Your task to perform on an android device: Open privacy settings Image 0: 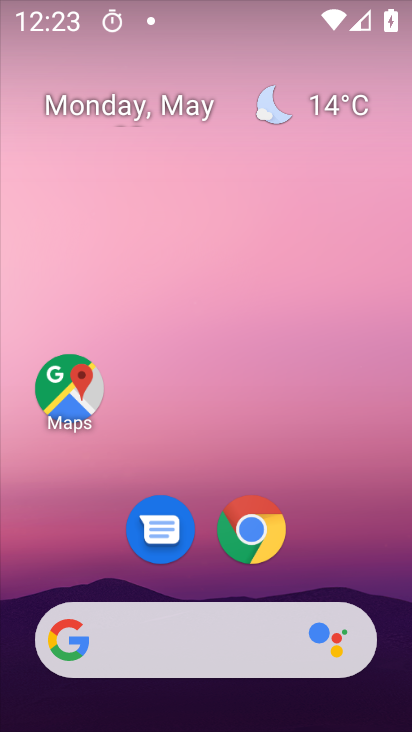
Step 0: drag from (388, 570) to (382, 210)
Your task to perform on an android device: Open privacy settings Image 1: 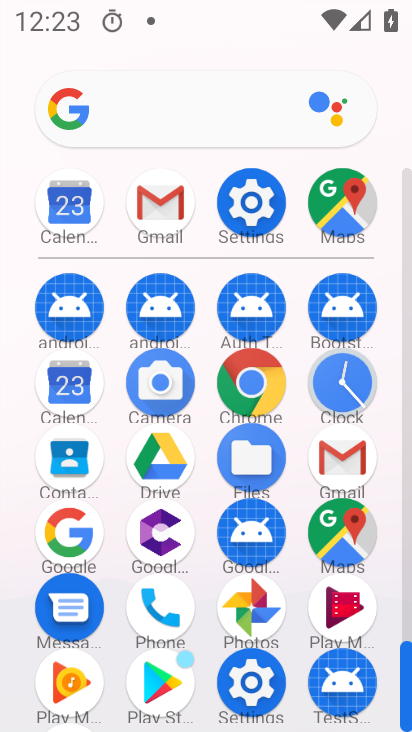
Step 1: click (250, 679)
Your task to perform on an android device: Open privacy settings Image 2: 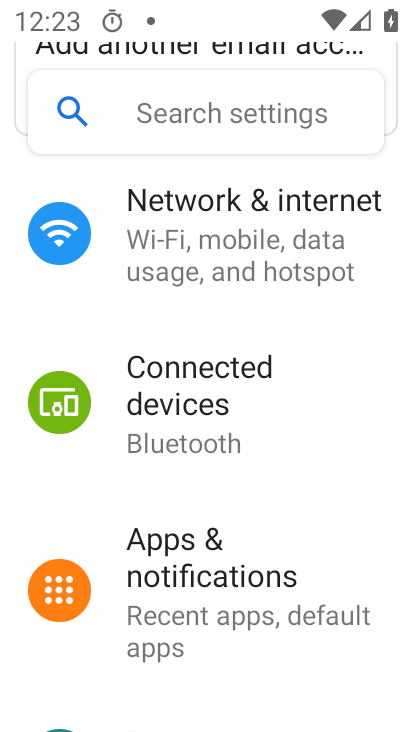
Step 2: drag from (341, 350) to (335, 456)
Your task to perform on an android device: Open privacy settings Image 3: 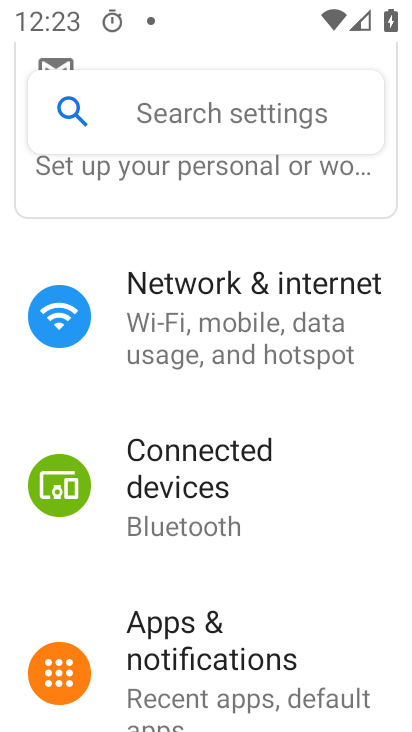
Step 3: drag from (366, 328) to (356, 442)
Your task to perform on an android device: Open privacy settings Image 4: 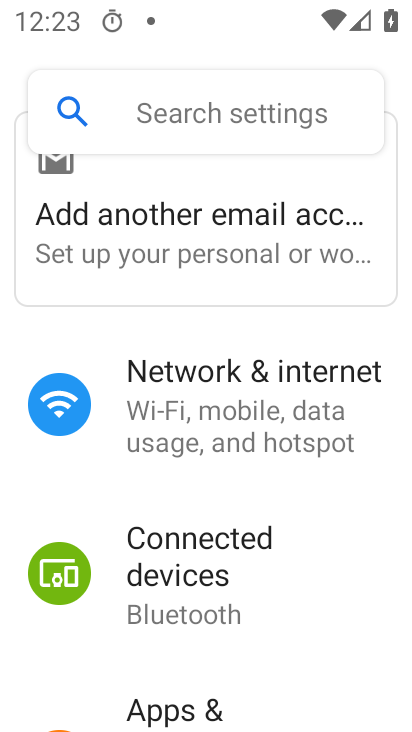
Step 4: drag from (377, 615) to (378, 512)
Your task to perform on an android device: Open privacy settings Image 5: 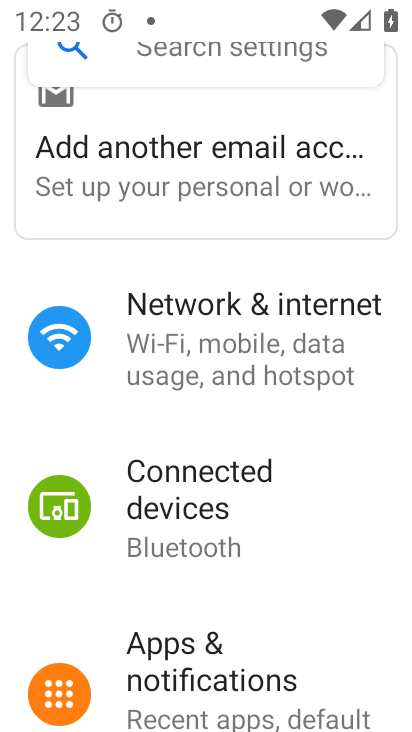
Step 5: drag from (377, 623) to (381, 526)
Your task to perform on an android device: Open privacy settings Image 6: 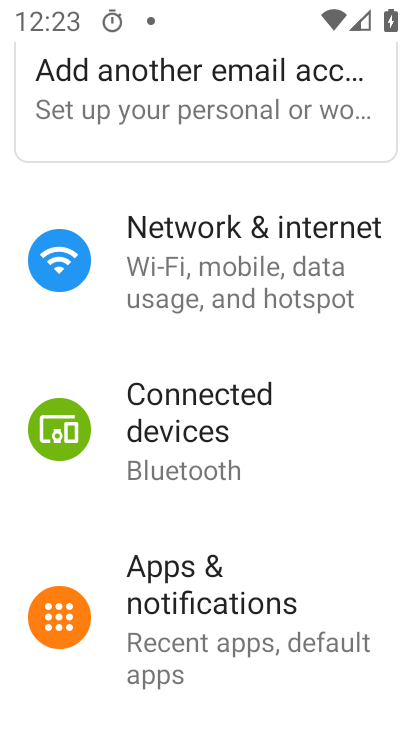
Step 6: drag from (375, 642) to (381, 530)
Your task to perform on an android device: Open privacy settings Image 7: 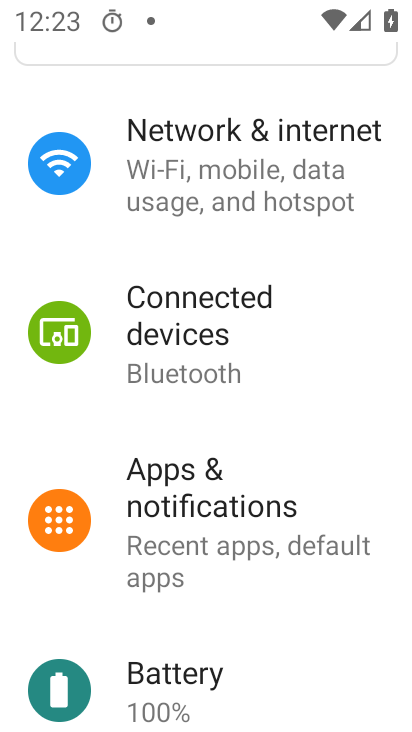
Step 7: drag from (369, 652) to (374, 533)
Your task to perform on an android device: Open privacy settings Image 8: 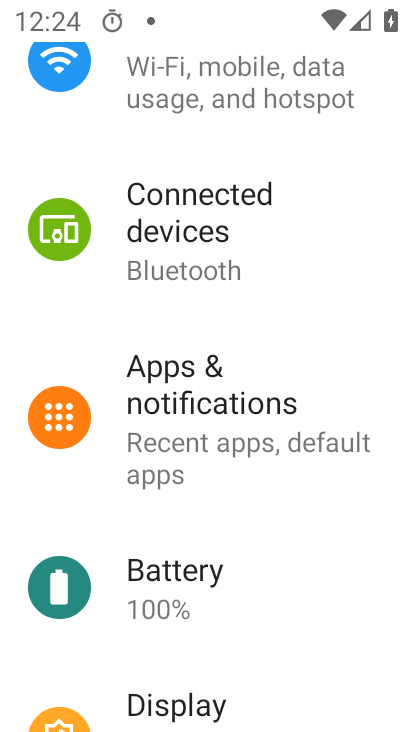
Step 8: drag from (347, 669) to (355, 543)
Your task to perform on an android device: Open privacy settings Image 9: 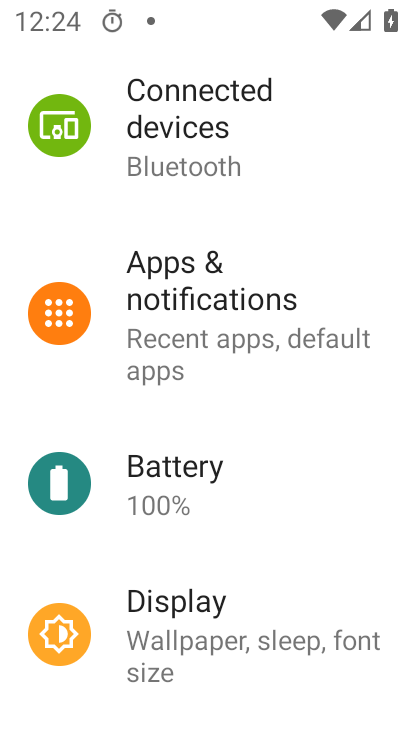
Step 9: drag from (369, 692) to (381, 570)
Your task to perform on an android device: Open privacy settings Image 10: 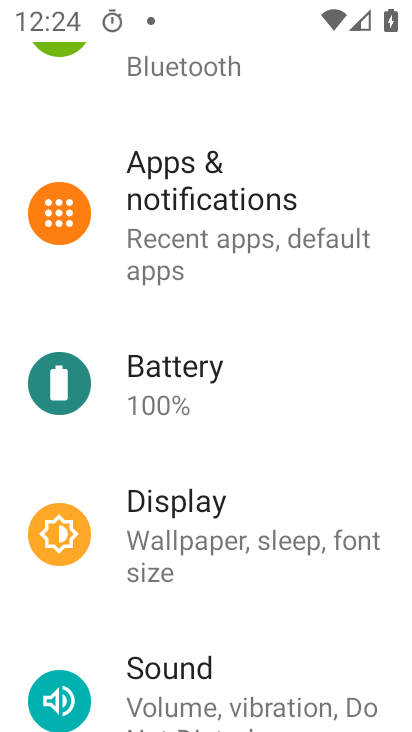
Step 10: drag from (373, 679) to (376, 564)
Your task to perform on an android device: Open privacy settings Image 11: 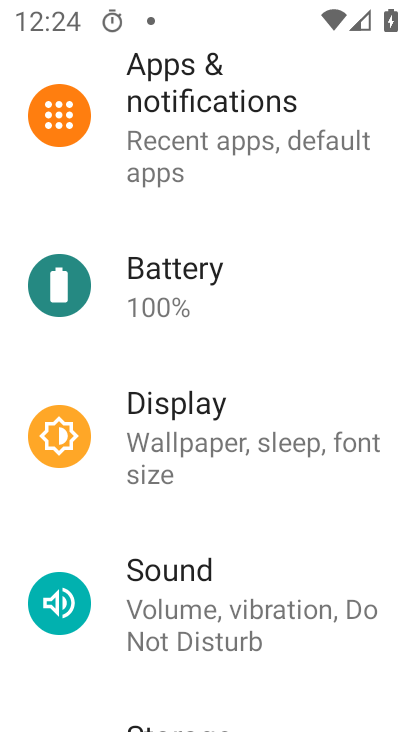
Step 11: drag from (373, 679) to (366, 559)
Your task to perform on an android device: Open privacy settings Image 12: 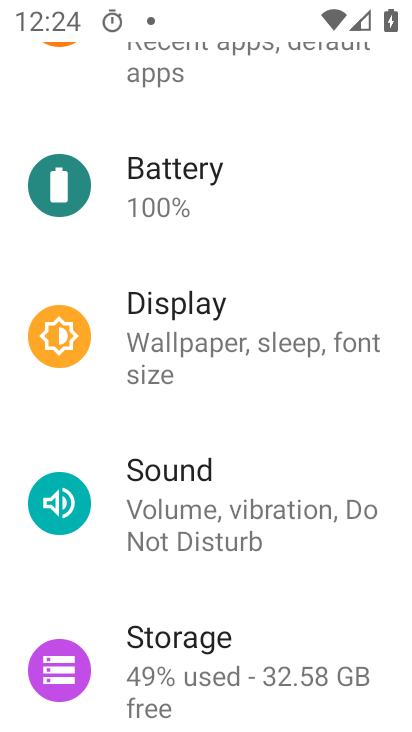
Step 12: drag from (339, 587) to (349, 462)
Your task to perform on an android device: Open privacy settings Image 13: 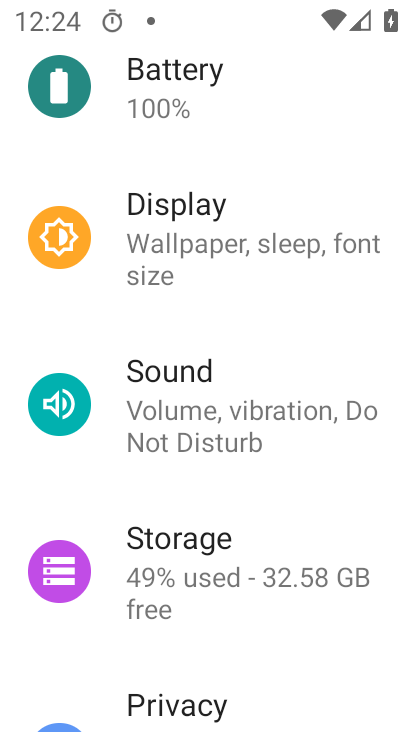
Step 13: drag from (368, 641) to (375, 537)
Your task to perform on an android device: Open privacy settings Image 14: 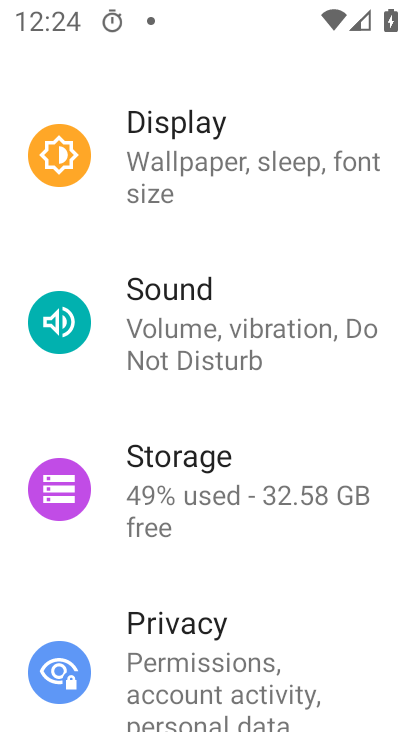
Step 14: drag from (359, 669) to (359, 546)
Your task to perform on an android device: Open privacy settings Image 15: 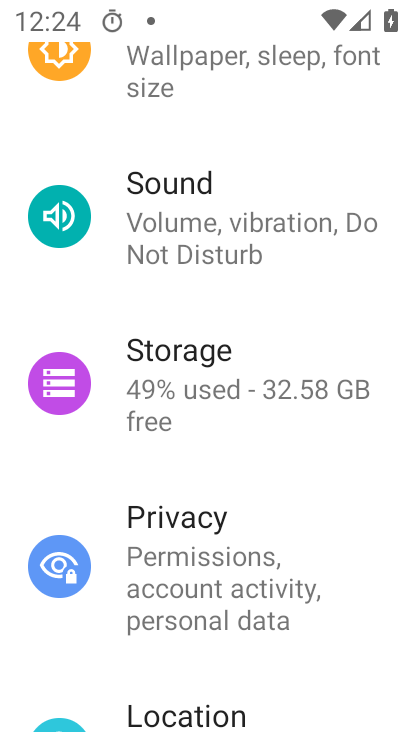
Step 15: click (269, 571)
Your task to perform on an android device: Open privacy settings Image 16: 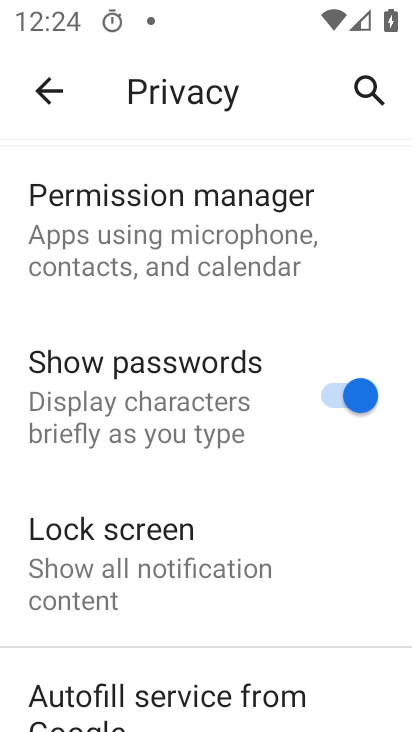
Step 16: task complete